Your task to perform on an android device: Go to sound settings Image 0: 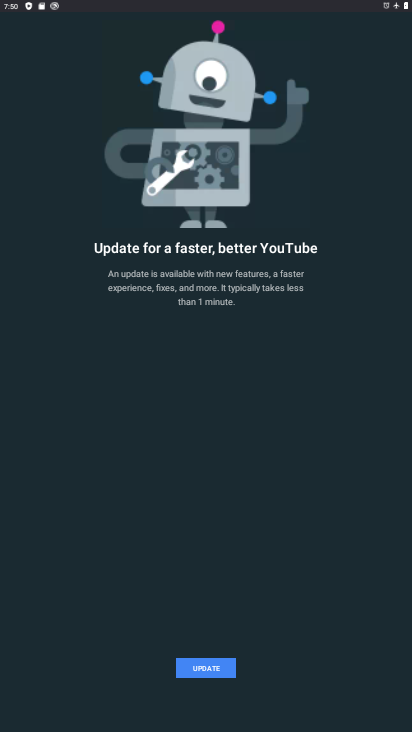
Step 0: press home button
Your task to perform on an android device: Go to sound settings Image 1: 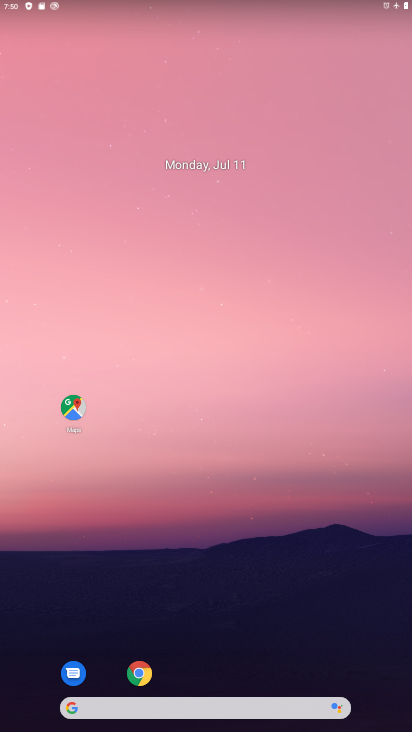
Step 1: drag from (340, 653) to (291, 107)
Your task to perform on an android device: Go to sound settings Image 2: 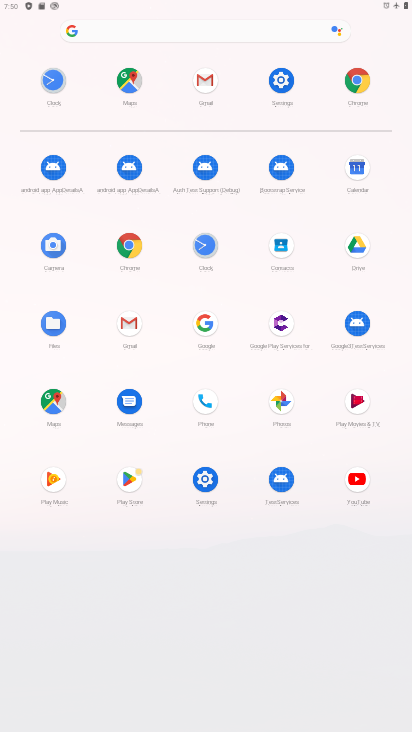
Step 2: click (276, 77)
Your task to perform on an android device: Go to sound settings Image 3: 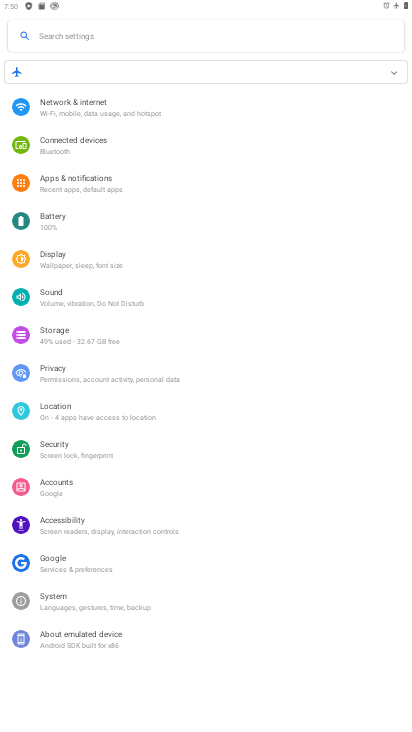
Step 3: click (84, 299)
Your task to perform on an android device: Go to sound settings Image 4: 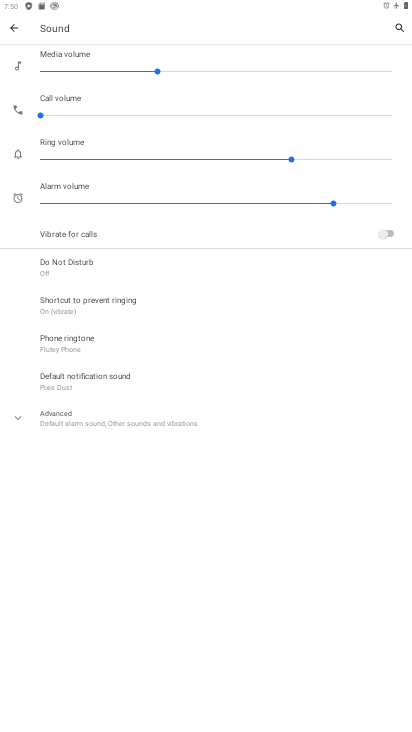
Step 4: task complete